Your task to perform on an android device: turn on wifi Image 0: 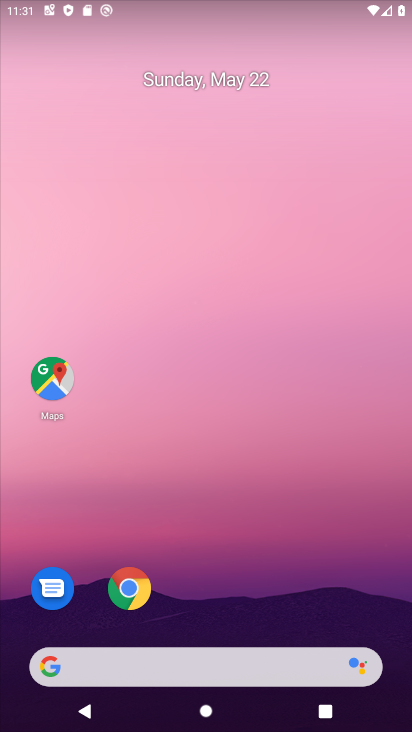
Step 0: drag from (293, 692) to (312, 293)
Your task to perform on an android device: turn on wifi Image 1: 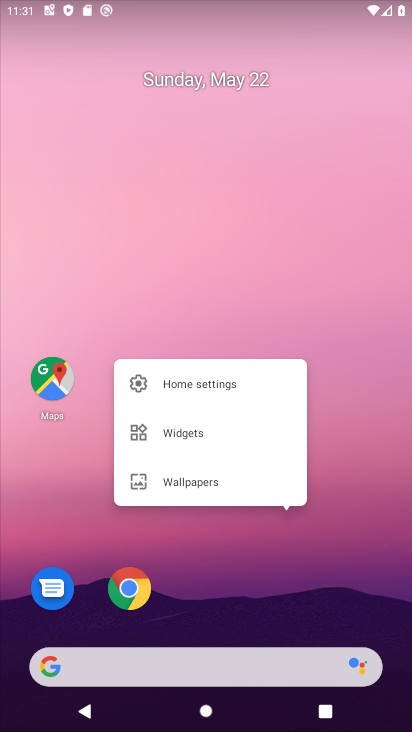
Step 1: click (273, 297)
Your task to perform on an android device: turn on wifi Image 2: 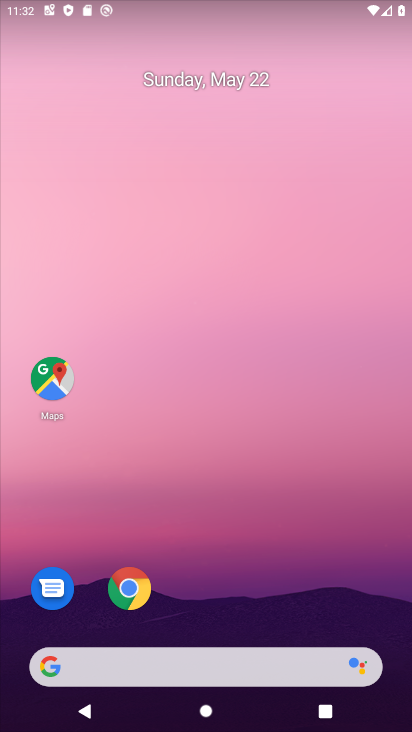
Step 2: drag from (257, 683) to (225, 75)
Your task to perform on an android device: turn on wifi Image 3: 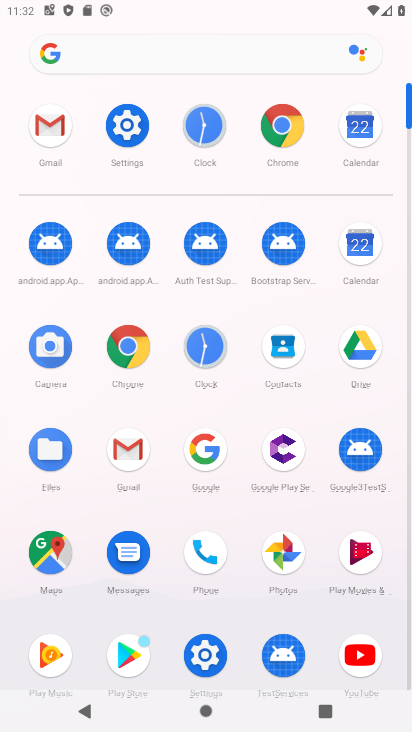
Step 3: click (109, 119)
Your task to perform on an android device: turn on wifi Image 4: 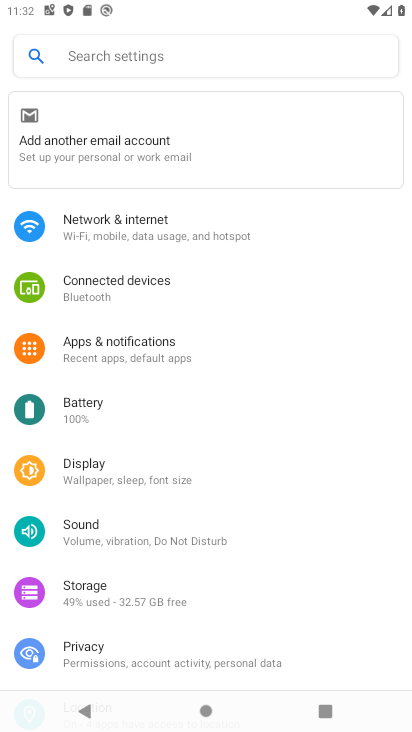
Step 4: click (121, 236)
Your task to perform on an android device: turn on wifi Image 5: 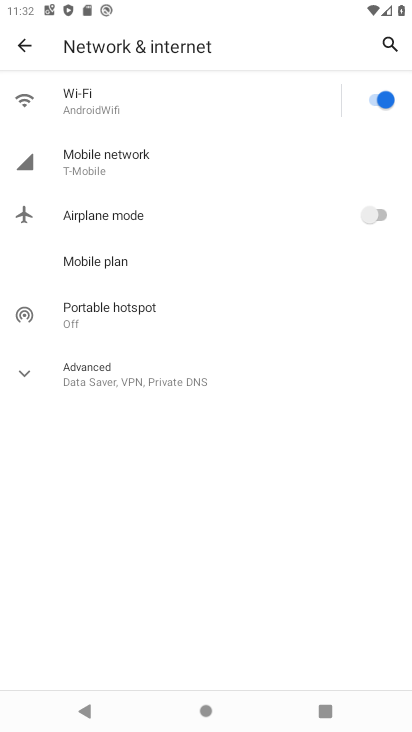
Step 5: click (382, 92)
Your task to perform on an android device: turn on wifi Image 6: 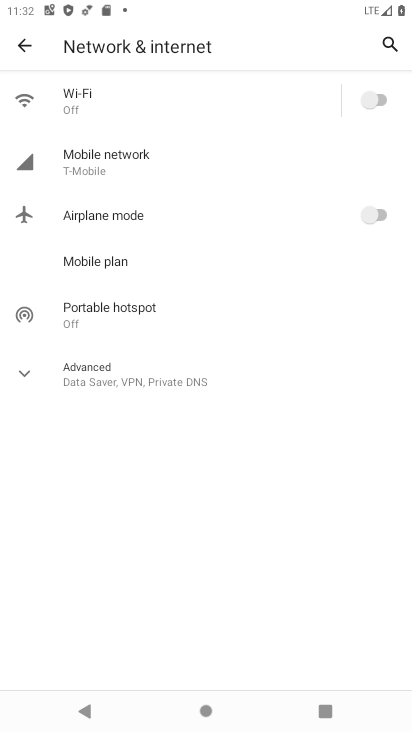
Step 6: click (382, 92)
Your task to perform on an android device: turn on wifi Image 7: 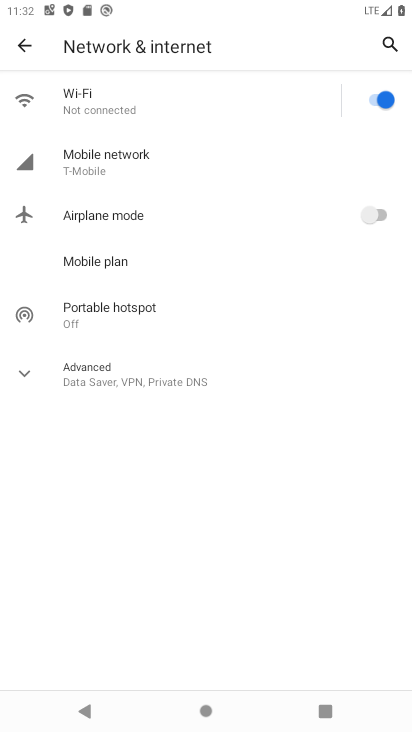
Step 7: task complete